Your task to perform on an android device: delete browsing data in the chrome app Image 0: 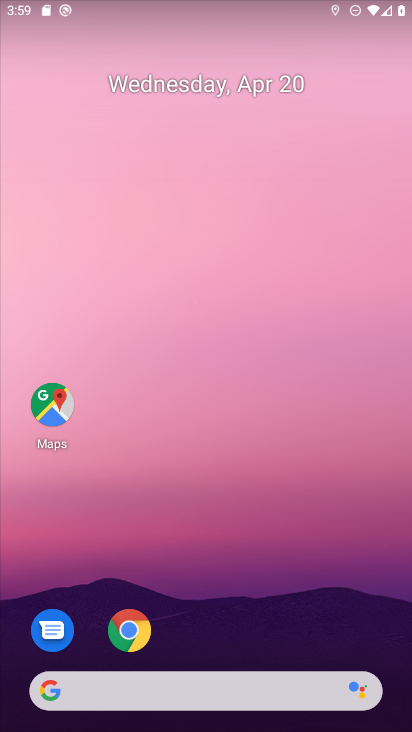
Step 0: drag from (232, 566) to (216, 72)
Your task to perform on an android device: delete browsing data in the chrome app Image 1: 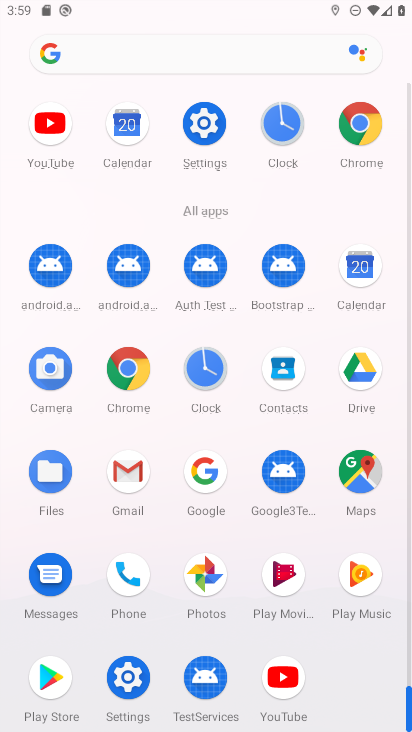
Step 1: click (117, 366)
Your task to perform on an android device: delete browsing data in the chrome app Image 2: 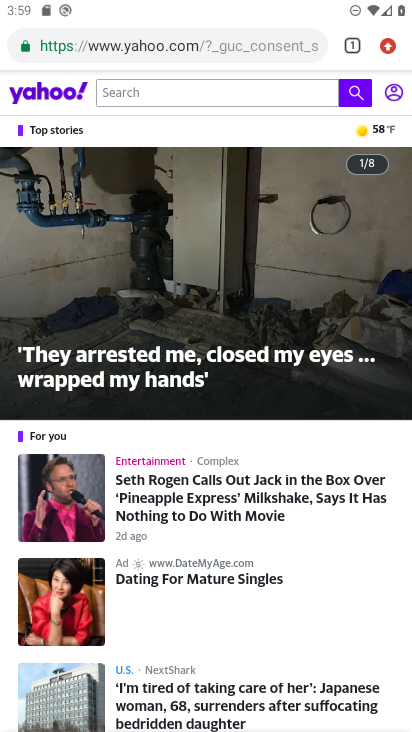
Step 2: click (389, 49)
Your task to perform on an android device: delete browsing data in the chrome app Image 3: 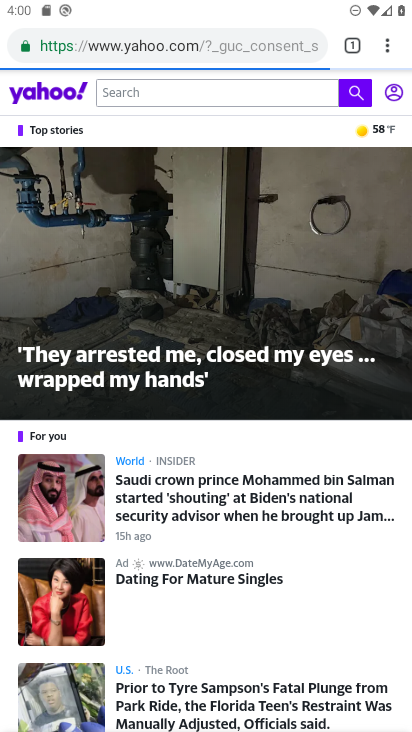
Step 3: drag from (383, 43) to (366, 280)
Your task to perform on an android device: delete browsing data in the chrome app Image 4: 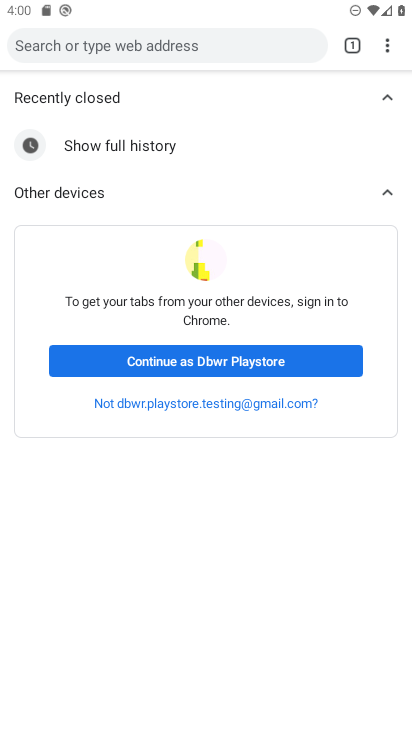
Step 4: drag from (378, 47) to (380, 326)
Your task to perform on an android device: delete browsing data in the chrome app Image 5: 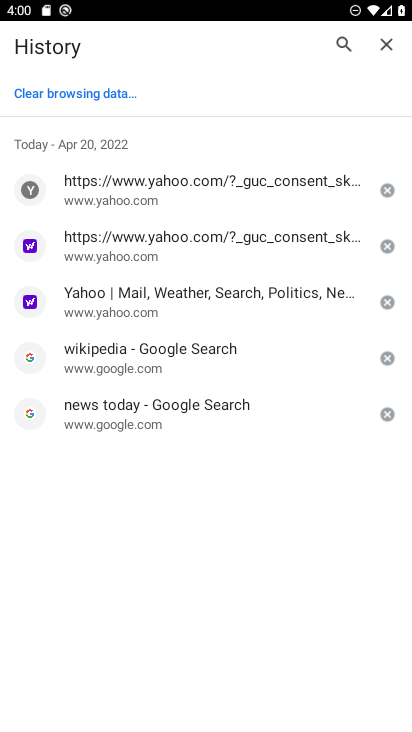
Step 5: click (100, 89)
Your task to perform on an android device: delete browsing data in the chrome app Image 6: 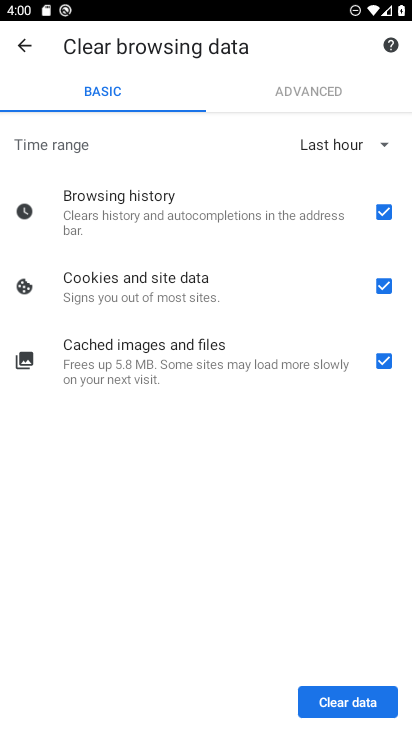
Step 6: click (365, 704)
Your task to perform on an android device: delete browsing data in the chrome app Image 7: 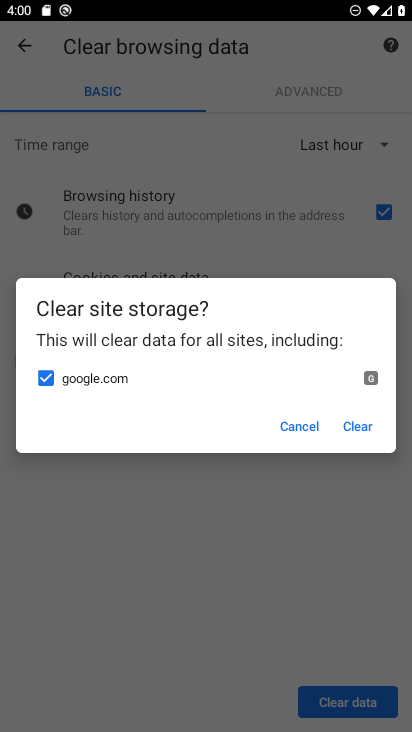
Step 7: click (359, 419)
Your task to perform on an android device: delete browsing data in the chrome app Image 8: 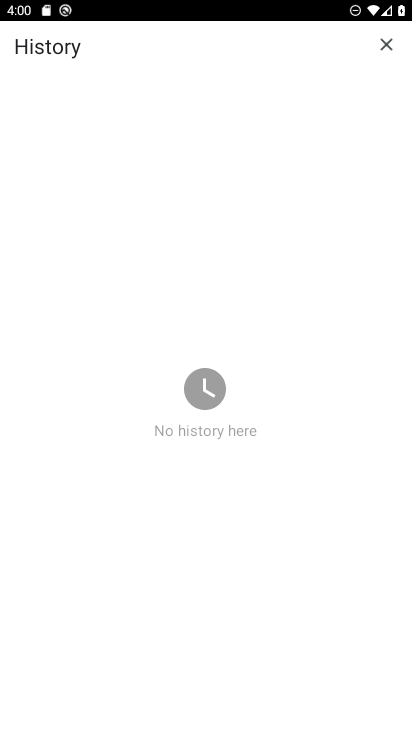
Step 8: task complete